Your task to perform on an android device: move a message to another label in the gmail app Image 0: 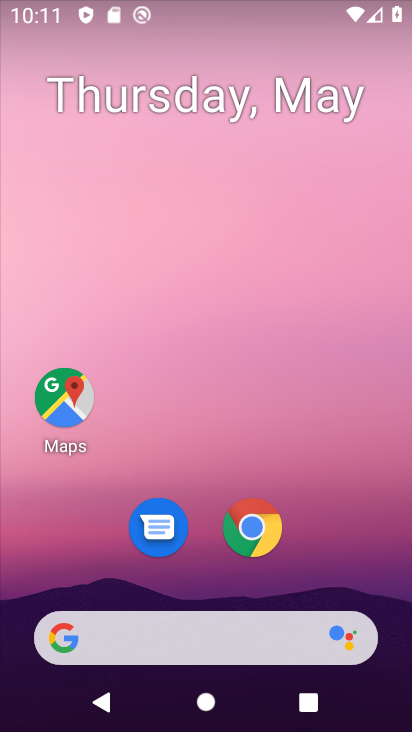
Step 0: drag from (216, 722) to (217, 112)
Your task to perform on an android device: move a message to another label in the gmail app Image 1: 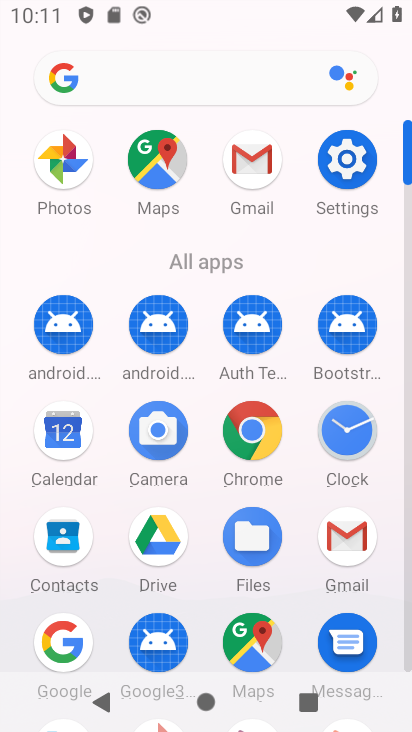
Step 1: click (356, 534)
Your task to perform on an android device: move a message to another label in the gmail app Image 2: 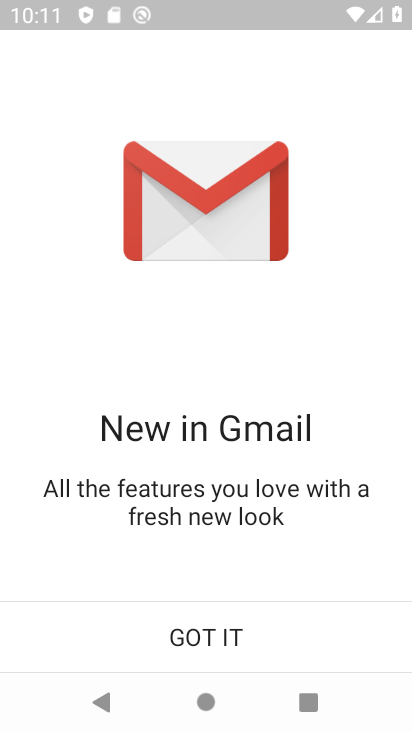
Step 2: click (203, 644)
Your task to perform on an android device: move a message to another label in the gmail app Image 3: 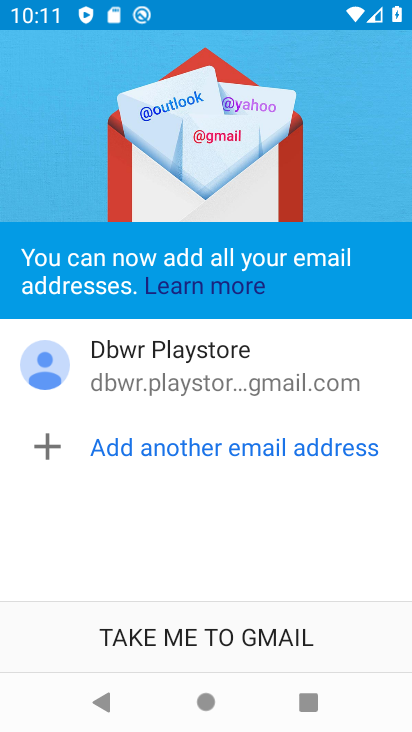
Step 3: click (191, 625)
Your task to perform on an android device: move a message to another label in the gmail app Image 4: 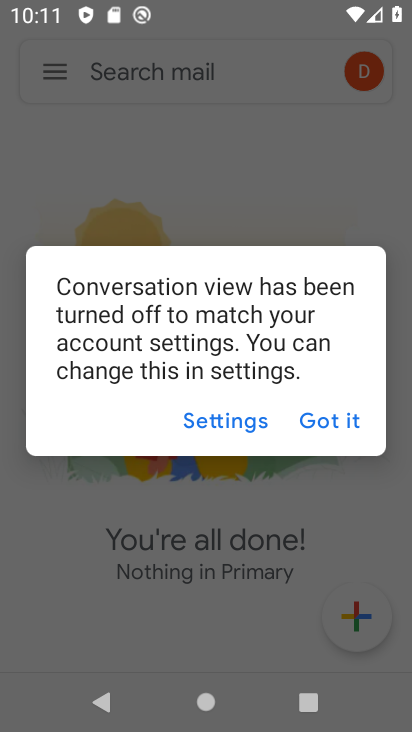
Step 4: click (314, 422)
Your task to perform on an android device: move a message to another label in the gmail app Image 5: 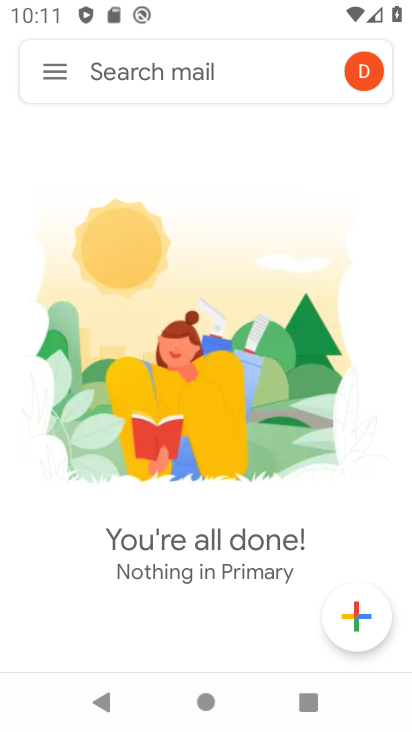
Step 5: task complete